Your task to perform on an android device: allow notifications from all sites in the chrome app Image 0: 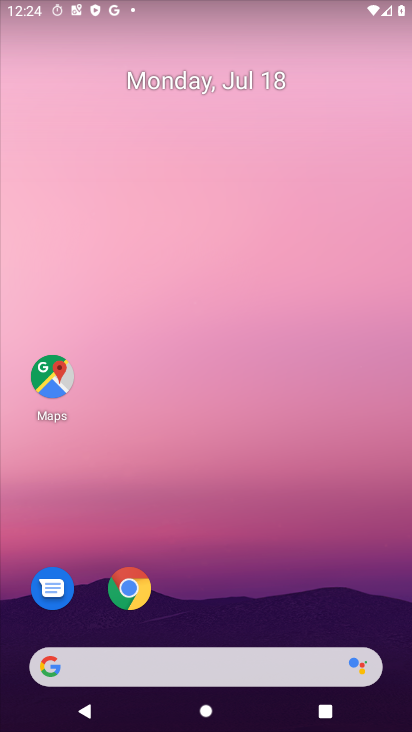
Step 0: click (124, 599)
Your task to perform on an android device: allow notifications from all sites in the chrome app Image 1: 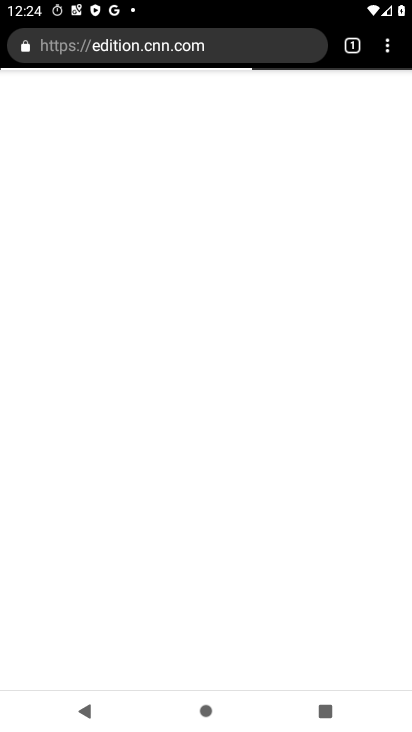
Step 1: click (391, 47)
Your task to perform on an android device: allow notifications from all sites in the chrome app Image 2: 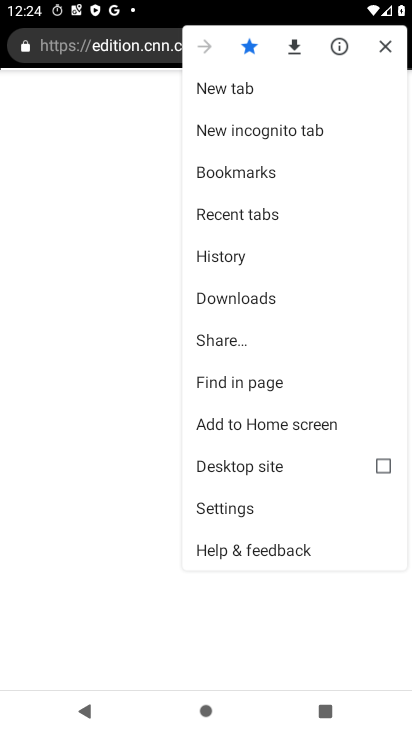
Step 2: click (224, 506)
Your task to perform on an android device: allow notifications from all sites in the chrome app Image 3: 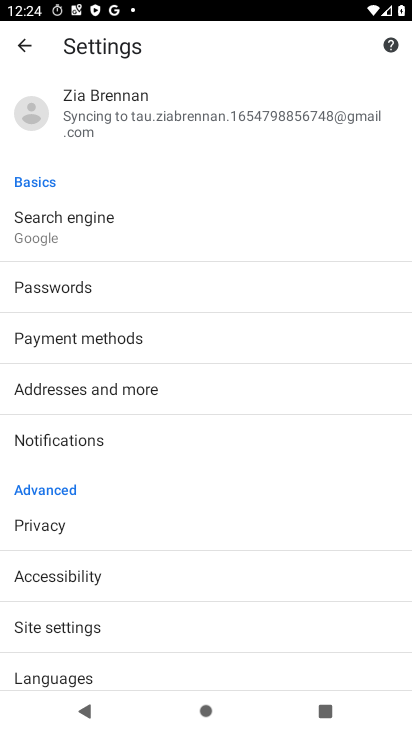
Step 3: click (165, 442)
Your task to perform on an android device: allow notifications from all sites in the chrome app Image 4: 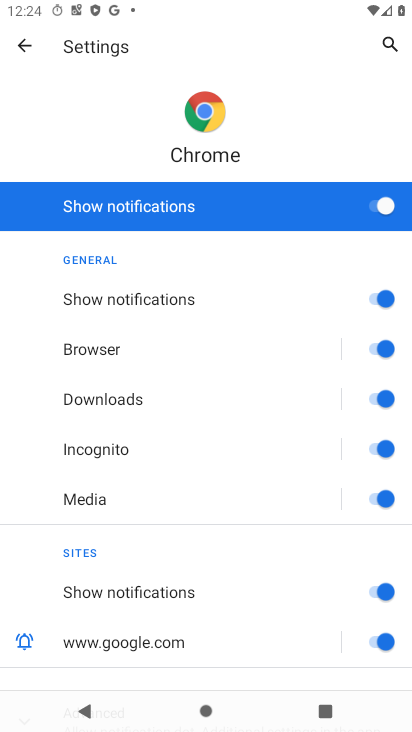
Step 4: task complete